Your task to perform on an android device: change text size in settings app Image 0: 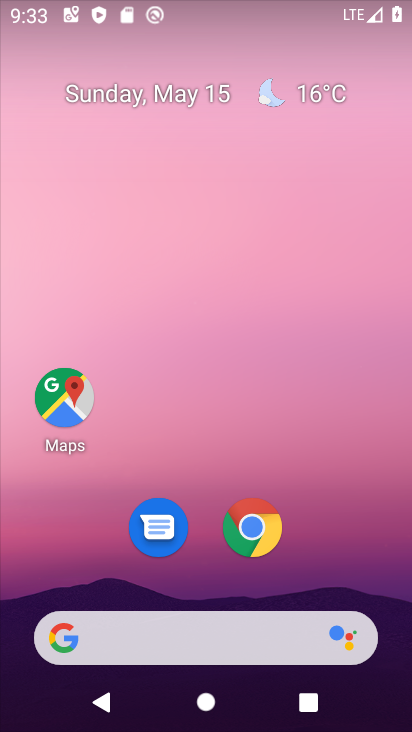
Step 0: drag from (371, 548) to (411, 14)
Your task to perform on an android device: change text size in settings app Image 1: 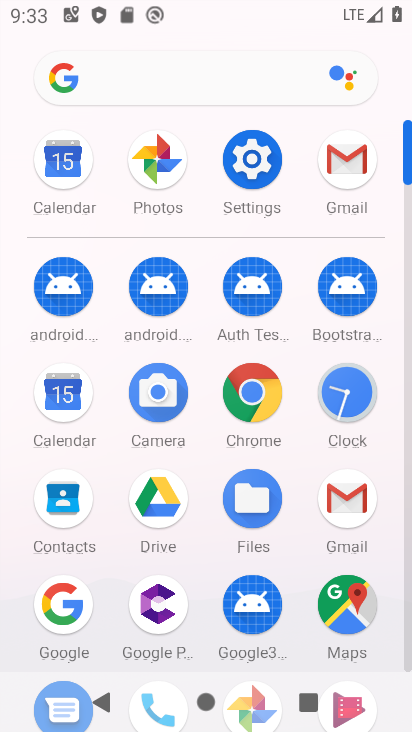
Step 1: click (242, 165)
Your task to perform on an android device: change text size in settings app Image 2: 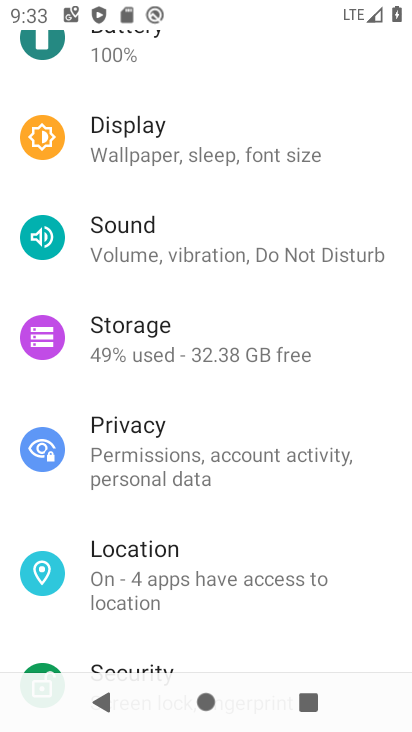
Step 2: click (106, 157)
Your task to perform on an android device: change text size in settings app Image 3: 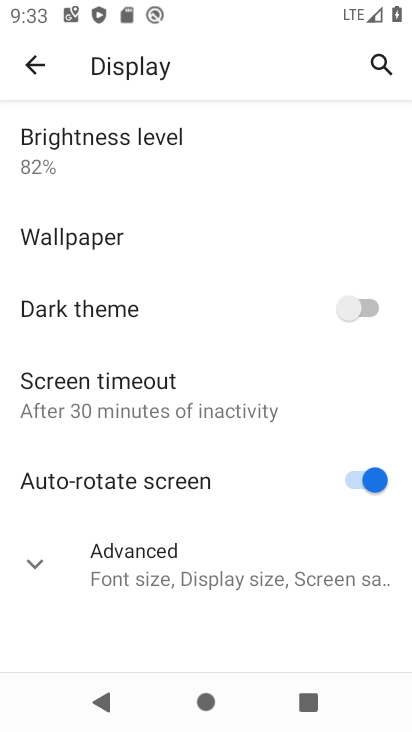
Step 3: click (31, 569)
Your task to perform on an android device: change text size in settings app Image 4: 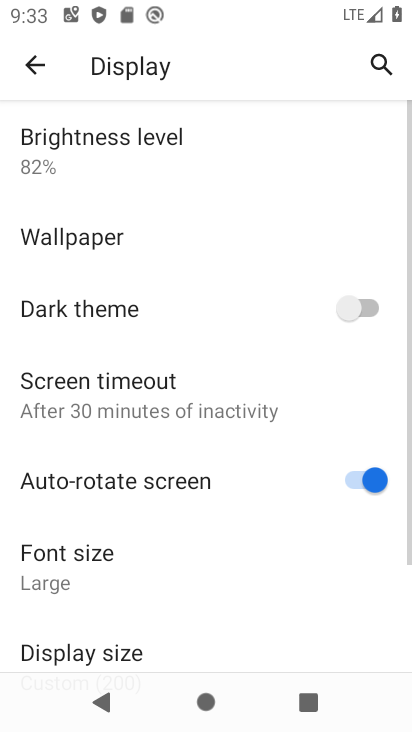
Step 4: click (42, 564)
Your task to perform on an android device: change text size in settings app Image 5: 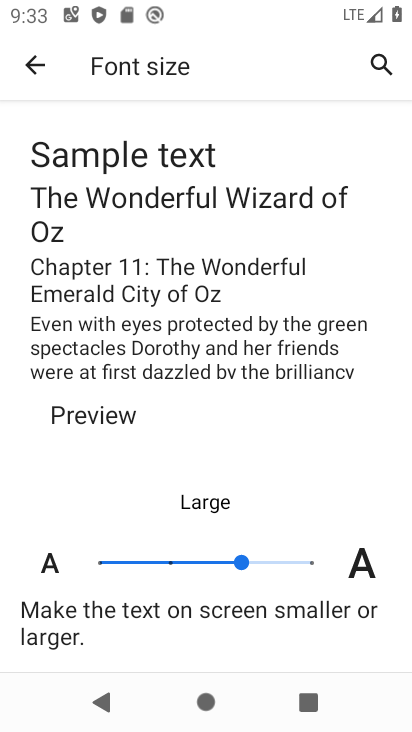
Step 5: click (171, 565)
Your task to perform on an android device: change text size in settings app Image 6: 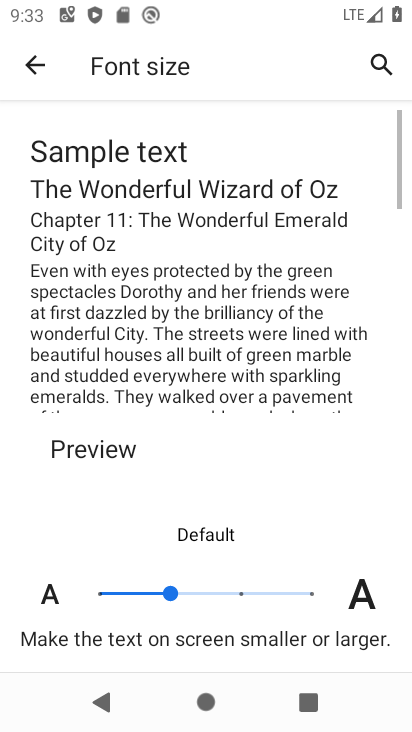
Step 6: task complete